Your task to perform on an android device: Go to Android settings Image 0: 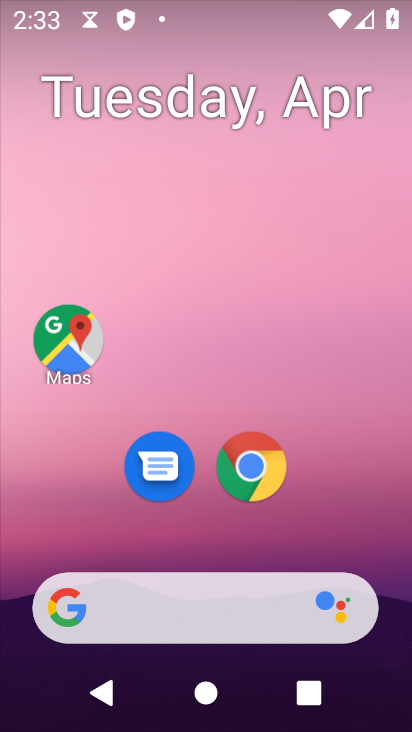
Step 0: drag from (379, 599) to (226, 25)
Your task to perform on an android device: Go to Android settings Image 1: 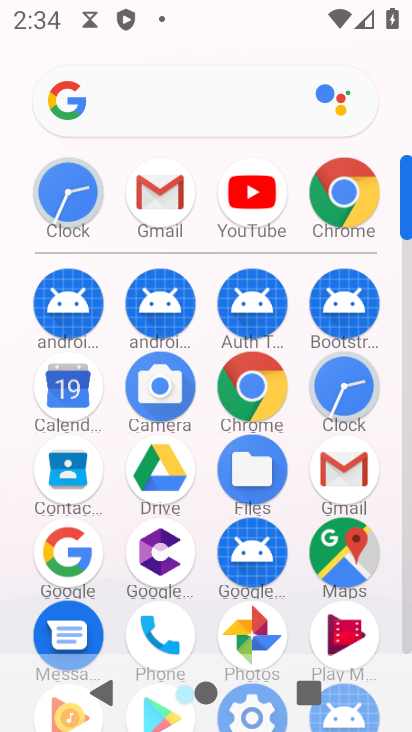
Step 1: drag from (4, 573) to (6, 286)
Your task to perform on an android device: Go to Android settings Image 2: 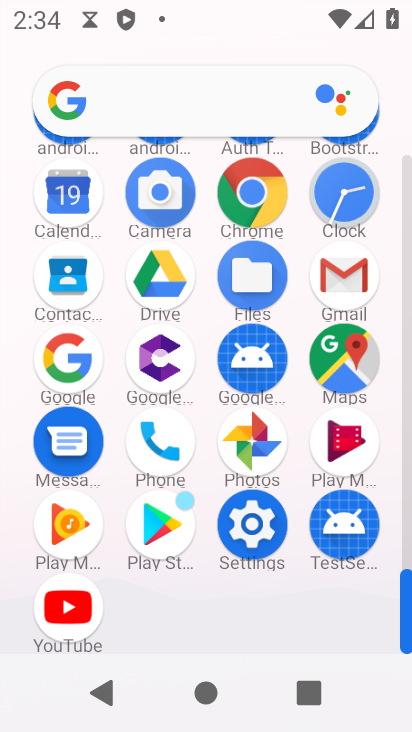
Step 2: click (247, 523)
Your task to perform on an android device: Go to Android settings Image 3: 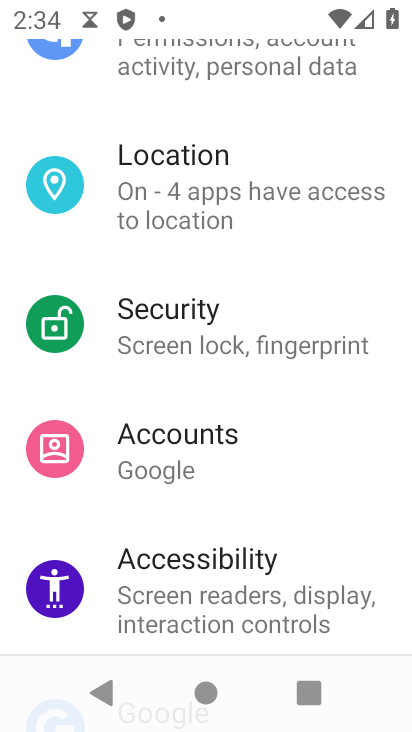
Step 3: task complete